Your task to perform on an android device: change the clock display to analog Image 0: 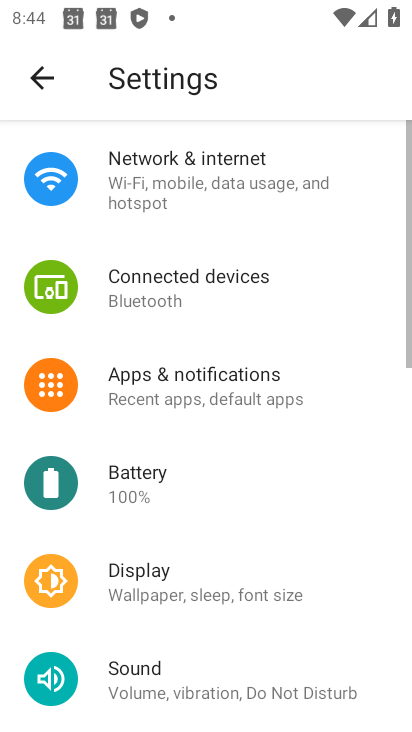
Step 0: press back button
Your task to perform on an android device: change the clock display to analog Image 1: 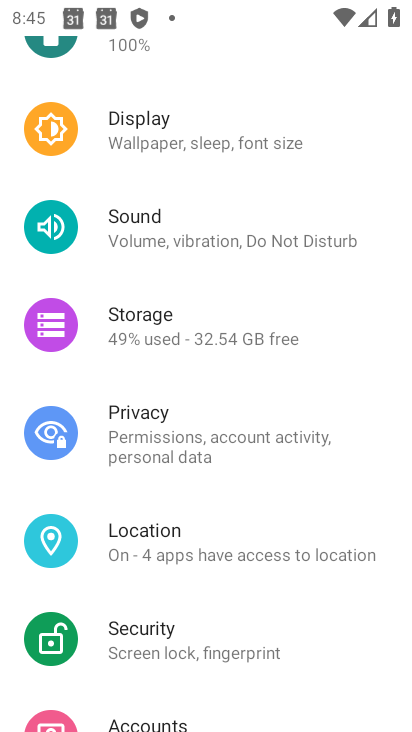
Step 1: drag from (149, 264) to (259, 525)
Your task to perform on an android device: change the clock display to analog Image 2: 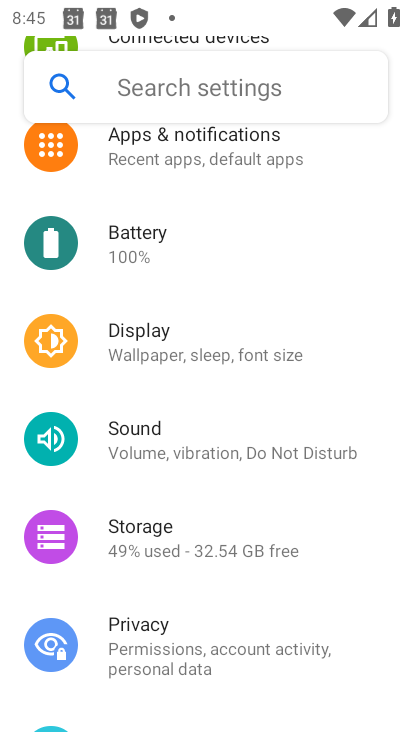
Step 2: drag from (185, 180) to (230, 536)
Your task to perform on an android device: change the clock display to analog Image 3: 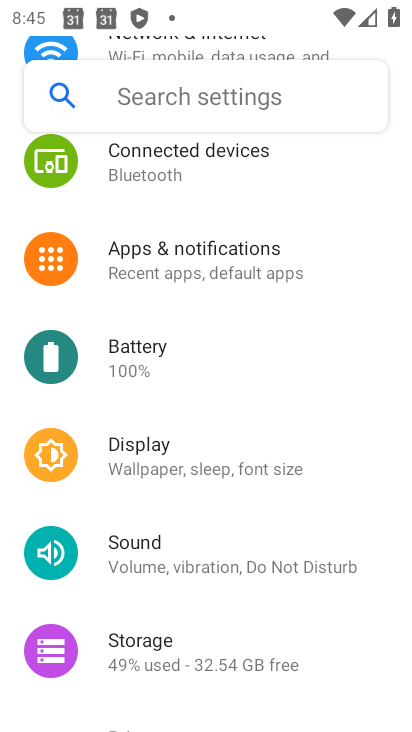
Step 3: drag from (159, 198) to (235, 480)
Your task to perform on an android device: change the clock display to analog Image 4: 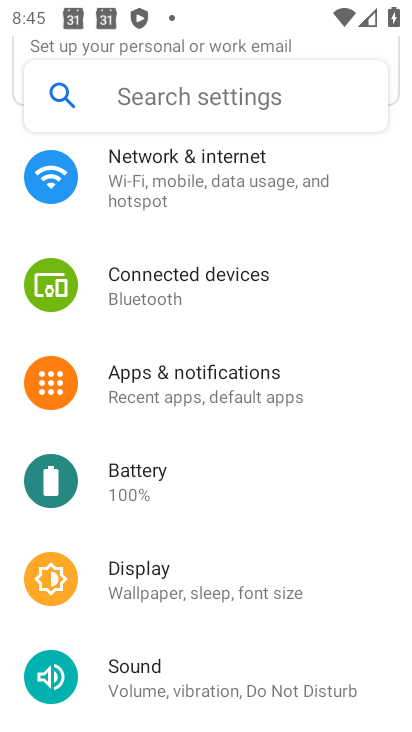
Step 4: drag from (214, 178) to (278, 585)
Your task to perform on an android device: change the clock display to analog Image 5: 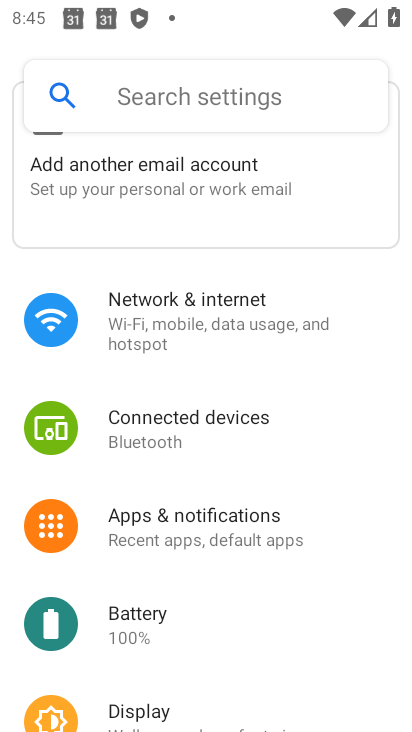
Step 5: drag from (135, 301) to (197, 626)
Your task to perform on an android device: change the clock display to analog Image 6: 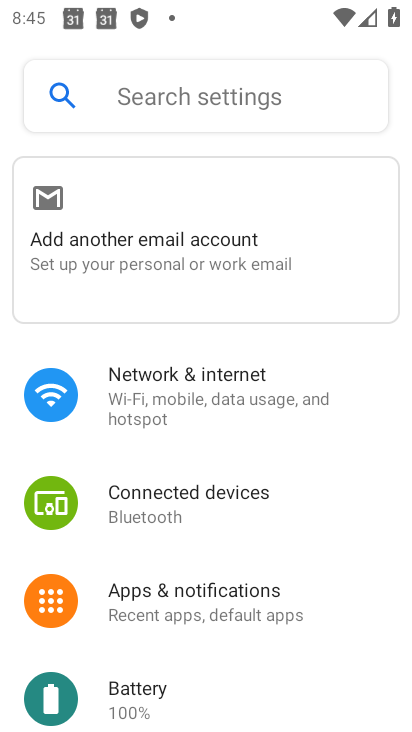
Step 6: press back button
Your task to perform on an android device: change the clock display to analog Image 7: 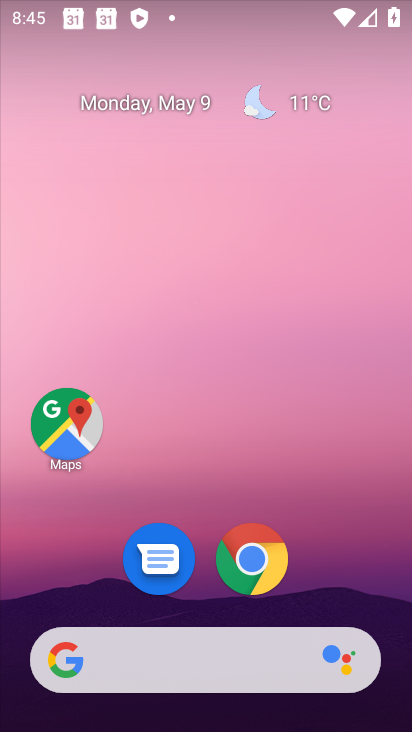
Step 7: drag from (297, 684) to (152, 43)
Your task to perform on an android device: change the clock display to analog Image 8: 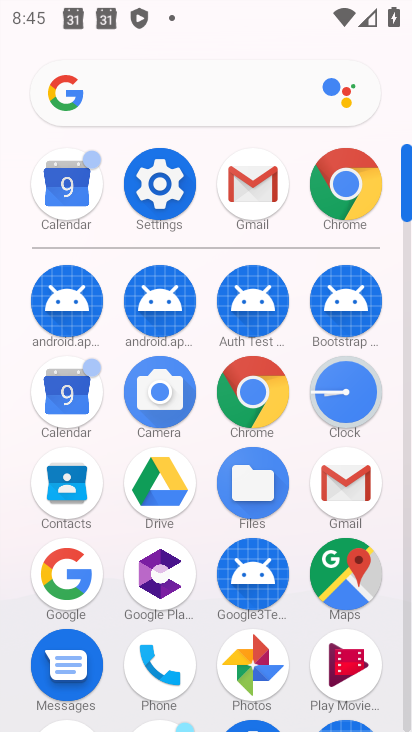
Step 8: click (356, 388)
Your task to perform on an android device: change the clock display to analog Image 9: 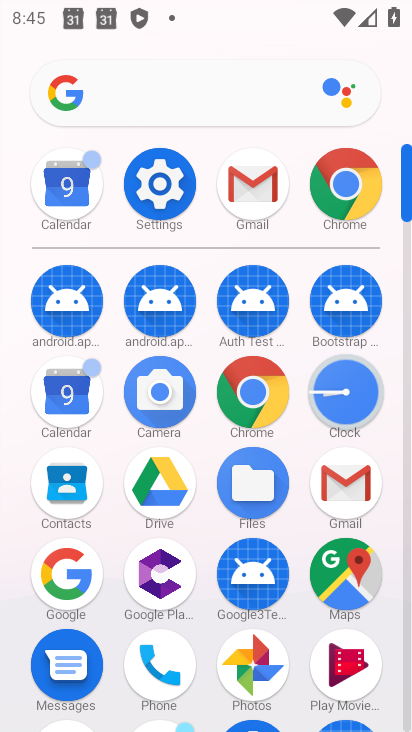
Step 9: click (346, 385)
Your task to perform on an android device: change the clock display to analog Image 10: 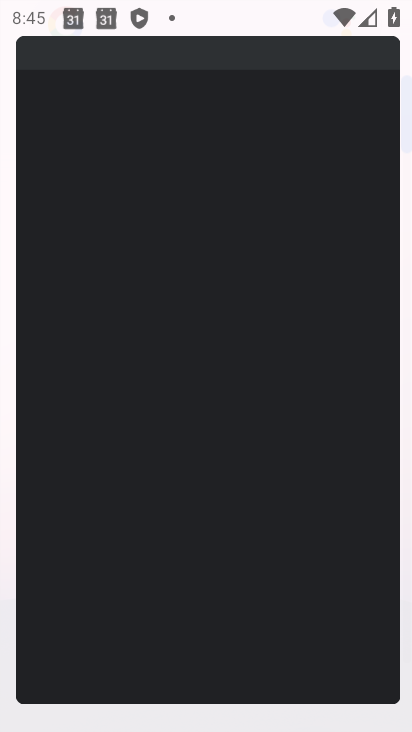
Step 10: click (340, 380)
Your task to perform on an android device: change the clock display to analog Image 11: 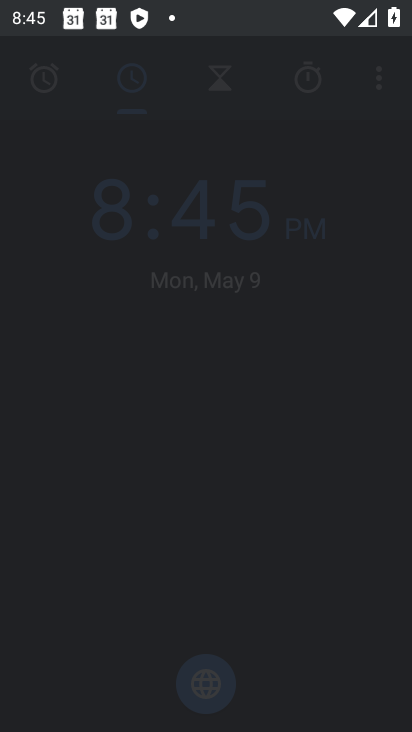
Step 11: click (343, 380)
Your task to perform on an android device: change the clock display to analog Image 12: 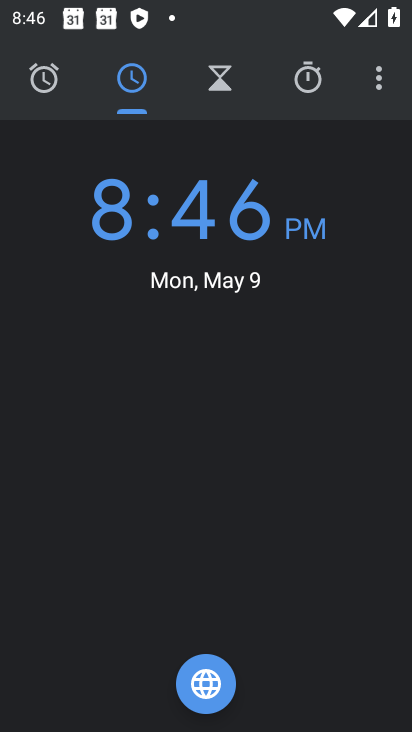
Step 12: click (371, 76)
Your task to perform on an android device: change the clock display to analog Image 13: 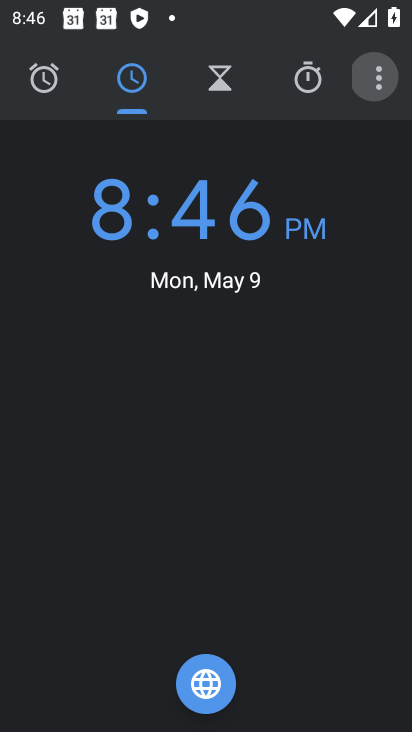
Step 13: click (372, 77)
Your task to perform on an android device: change the clock display to analog Image 14: 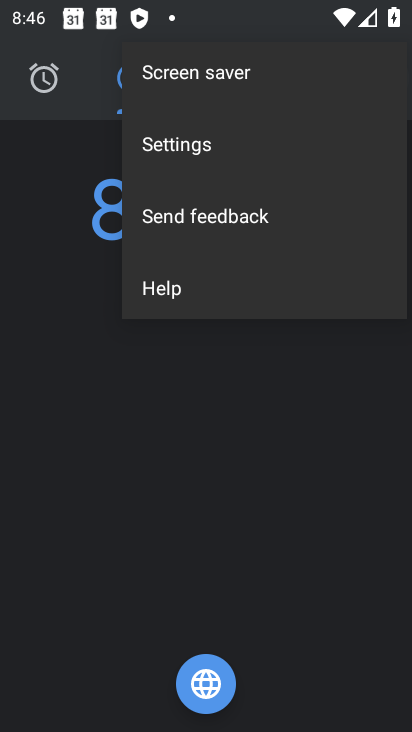
Step 14: click (372, 77)
Your task to perform on an android device: change the clock display to analog Image 15: 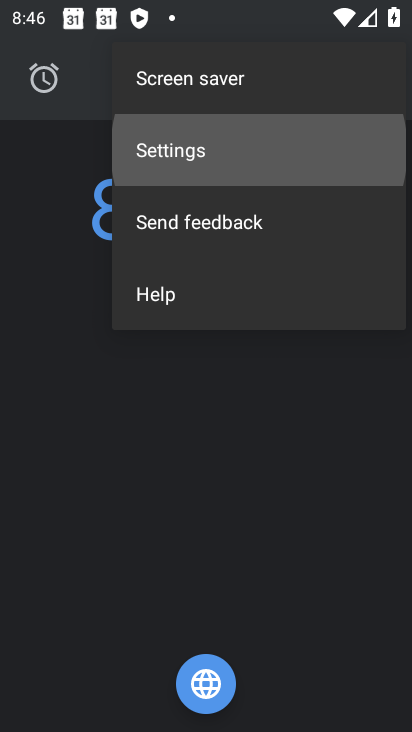
Step 15: click (373, 78)
Your task to perform on an android device: change the clock display to analog Image 16: 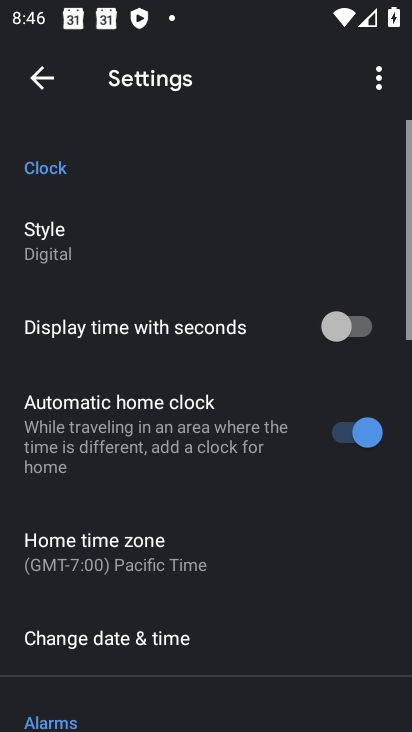
Step 16: click (188, 153)
Your task to perform on an android device: change the clock display to analog Image 17: 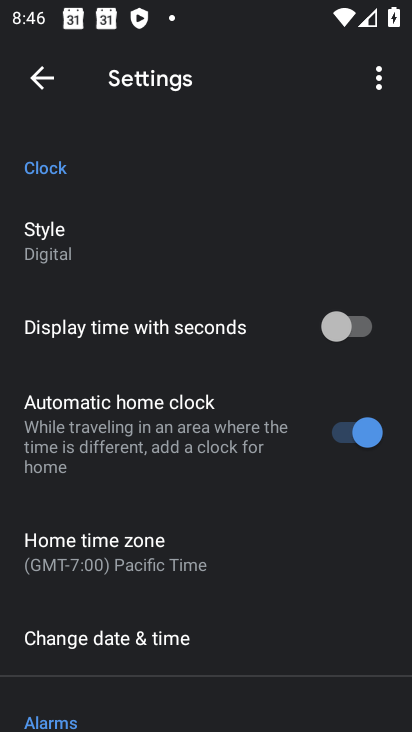
Step 17: click (120, 236)
Your task to perform on an android device: change the clock display to analog Image 18: 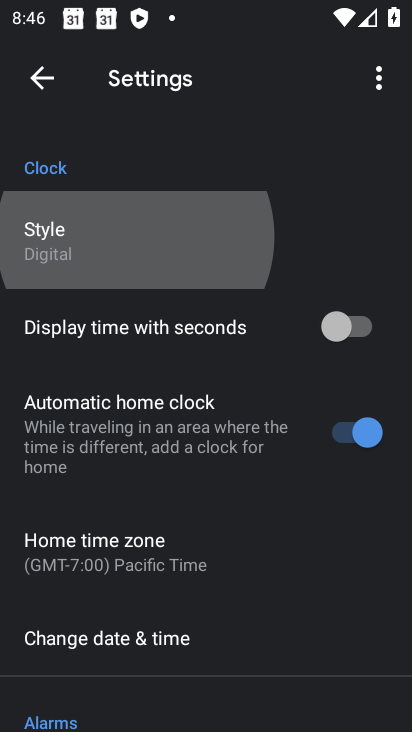
Step 18: click (120, 236)
Your task to perform on an android device: change the clock display to analog Image 19: 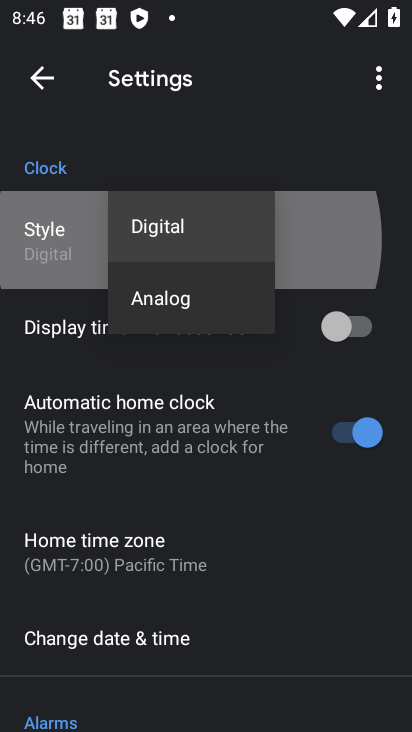
Step 19: click (122, 234)
Your task to perform on an android device: change the clock display to analog Image 20: 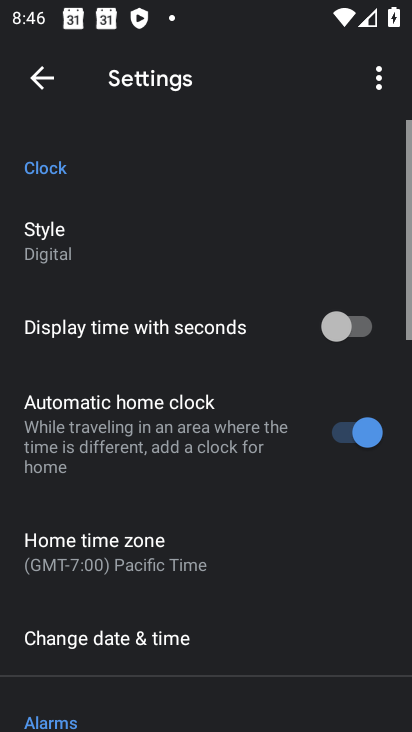
Step 20: click (114, 228)
Your task to perform on an android device: change the clock display to analog Image 21: 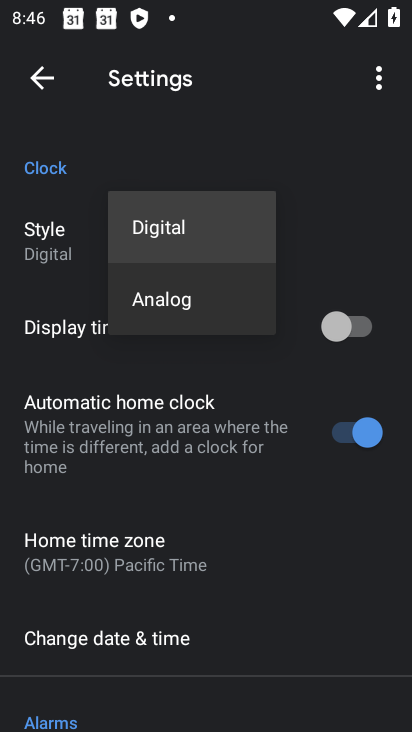
Step 21: click (168, 303)
Your task to perform on an android device: change the clock display to analog Image 22: 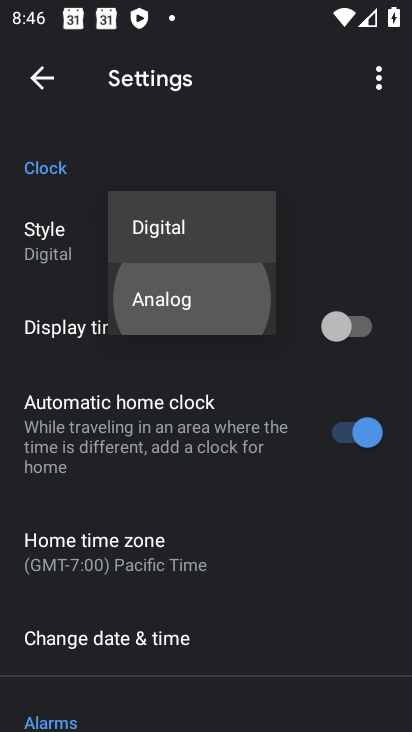
Step 22: click (169, 302)
Your task to perform on an android device: change the clock display to analog Image 23: 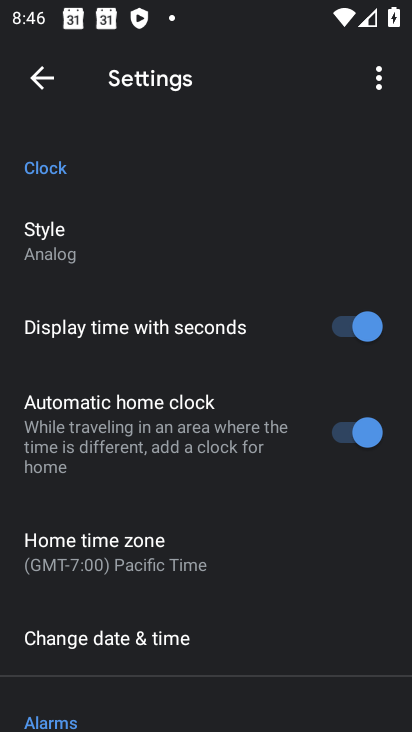
Step 23: task complete